Your task to perform on an android device: Show me productivity apps on the Play Store Image 0: 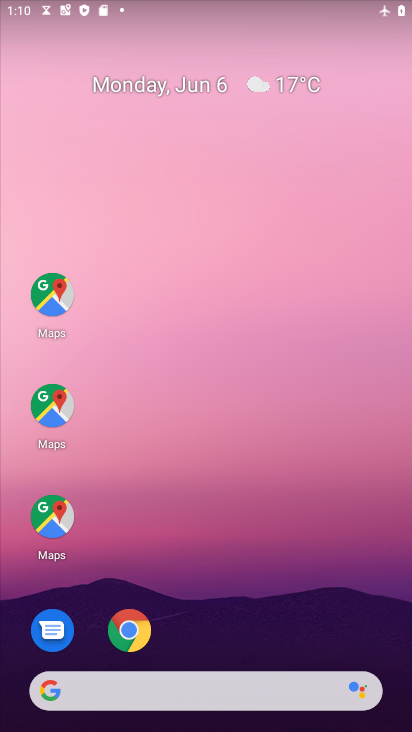
Step 0: drag from (236, 642) to (203, 226)
Your task to perform on an android device: Show me productivity apps on the Play Store Image 1: 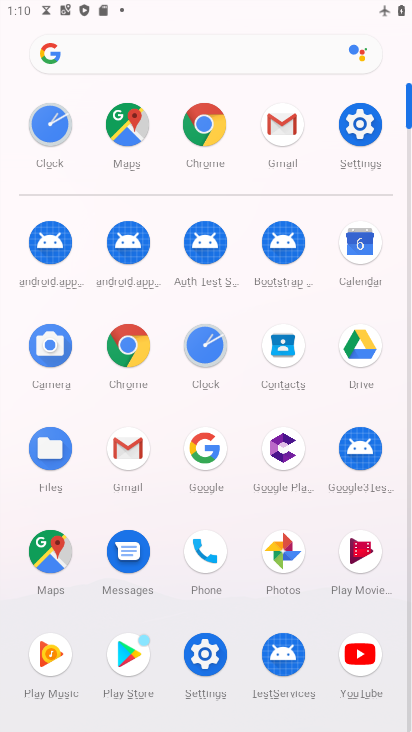
Step 1: click (127, 653)
Your task to perform on an android device: Show me productivity apps on the Play Store Image 2: 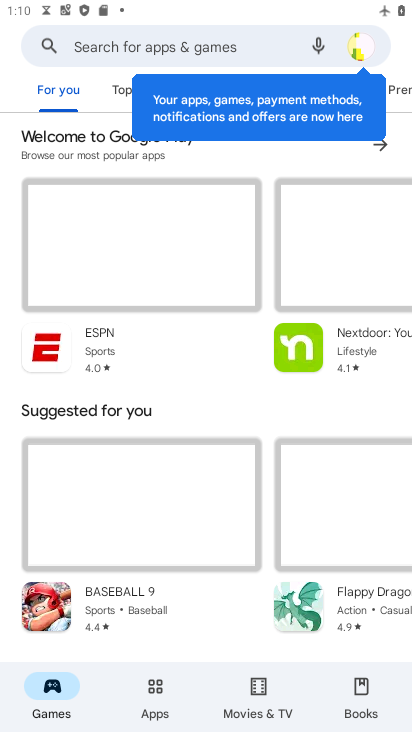
Step 2: click (77, 42)
Your task to perform on an android device: Show me productivity apps on the Play Store Image 3: 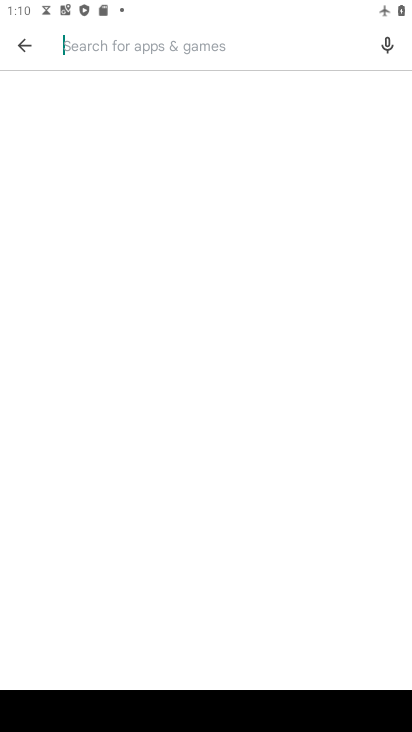
Step 3: type "productivity apps"
Your task to perform on an android device: Show me productivity apps on the Play Store Image 4: 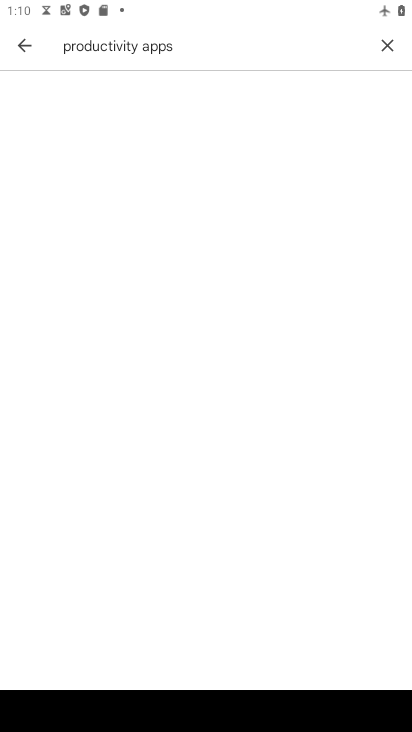
Step 4: click (191, 51)
Your task to perform on an android device: Show me productivity apps on the Play Store Image 5: 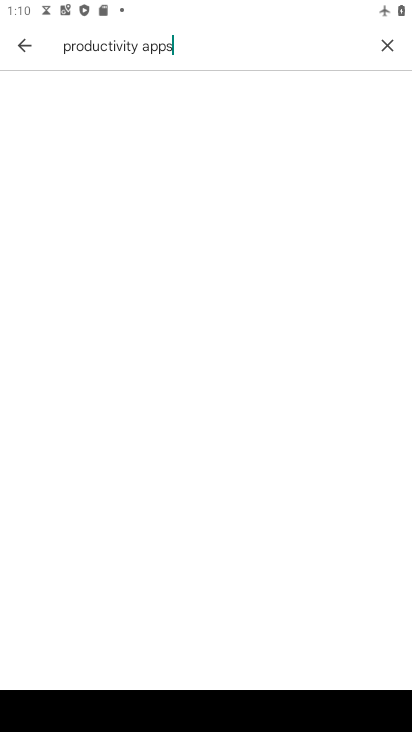
Step 5: click (191, 50)
Your task to perform on an android device: Show me productivity apps on the Play Store Image 6: 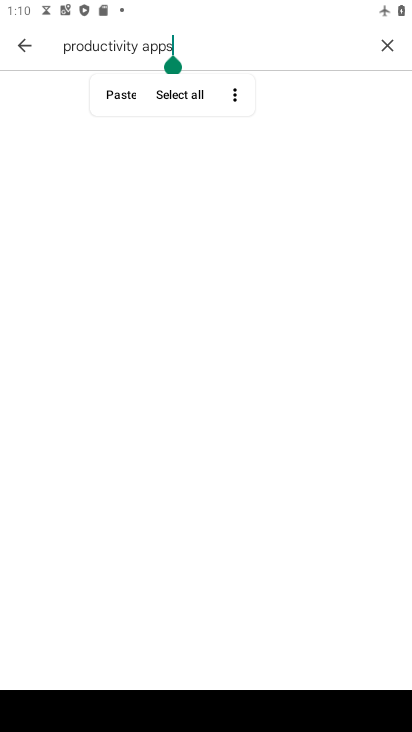
Step 6: click (198, 52)
Your task to perform on an android device: Show me productivity apps on the Play Store Image 7: 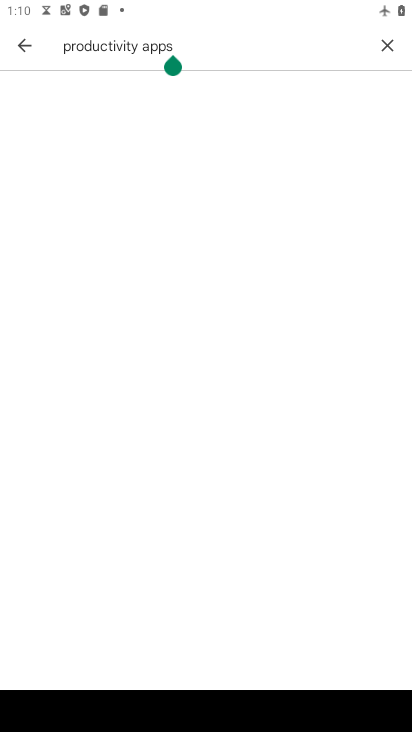
Step 7: click (210, 226)
Your task to perform on an android device: Show me productivity apps on the Play Store Image 8: 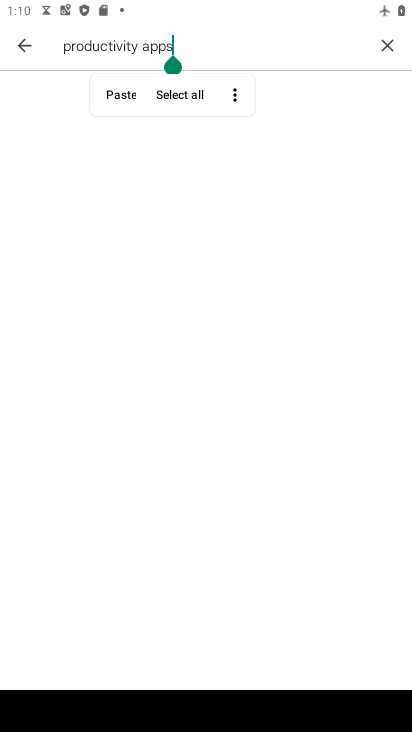
Step 8: task complete